Your task to perform on an android device: turn on javascript in the chrome app Image 0: 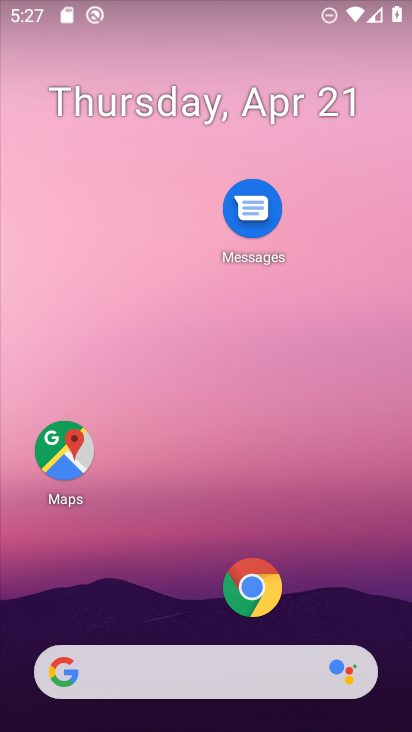
Step 0: click (247, 579)
Your task to perform on an android device: turn on javascript in the chrome app Image 1: 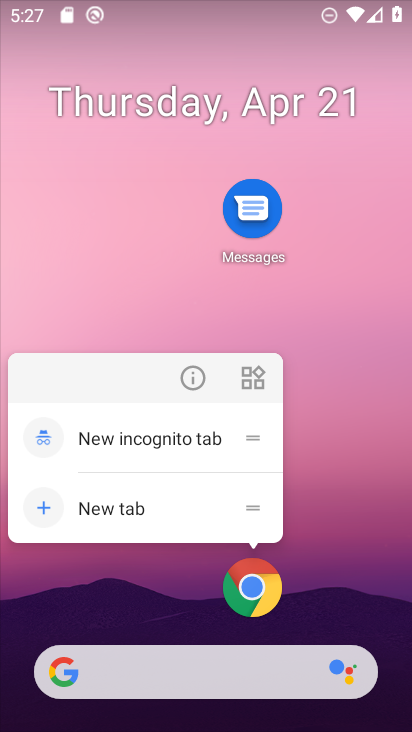
Step 1: click (244, 583)
Your task to perform on an android device: turn on javascript in the chrome app Image 2: 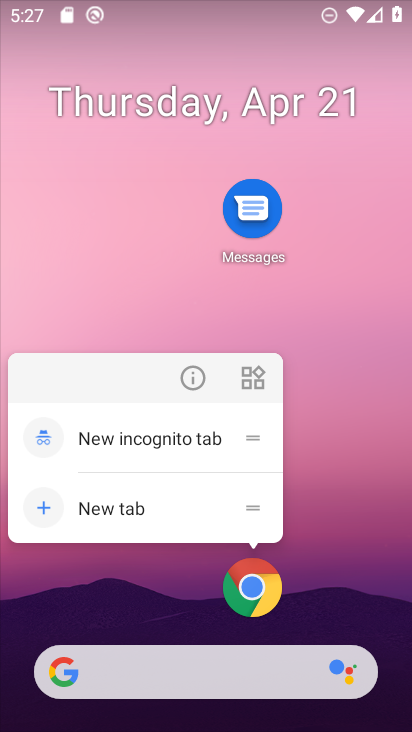
Step 2: click (319, 628)
Your task to perform on an android device: turn on javascript in the chrome app Image 3: 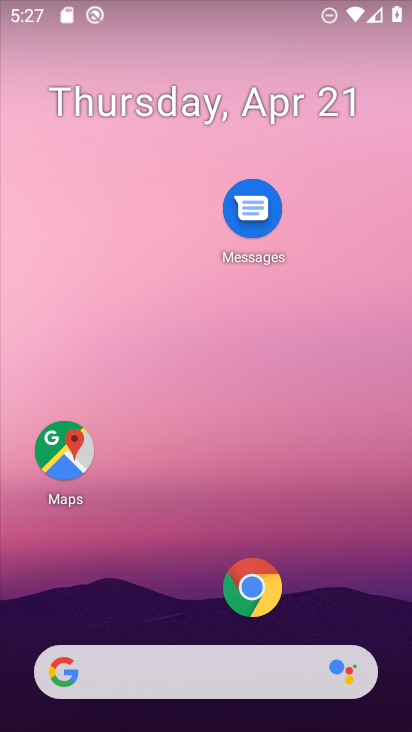
Step 3: drag from (340, 611) to (359, 20)
Your task to perform on an android device: turn on javascript in the chrome app Image 4: 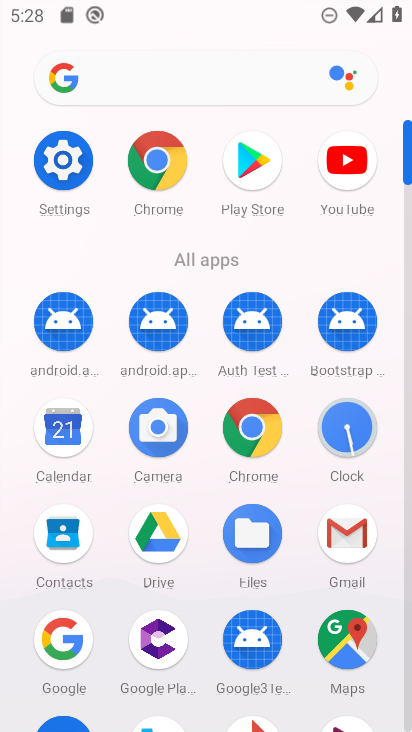
Step 4: click (149, 151)
Your task to perform on an android device: turn on javascript in the chrome app Image 5: 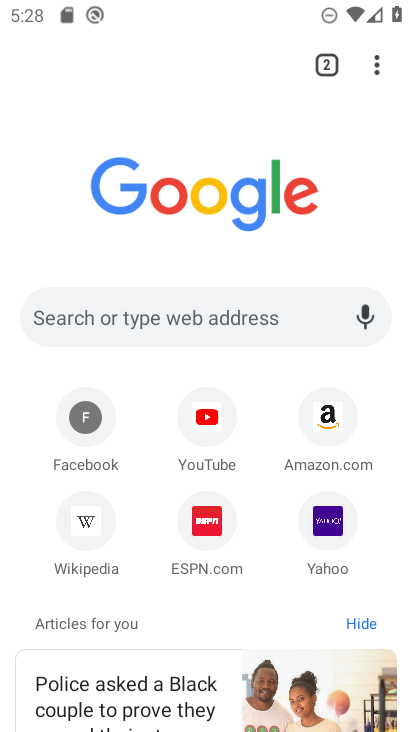
Step 5: click (376, 61)
Your task to perform on an android device: turn on javascript in the chrome app Image 6: 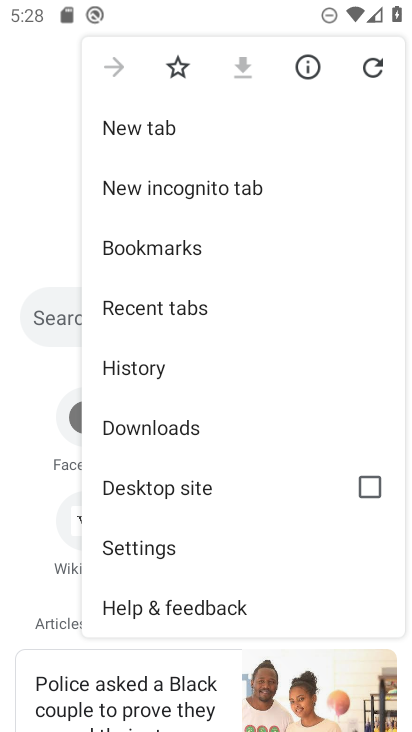
Step 6: click (185, 543)
Your task to perform on an android device: turn on javascript in the chrome app Image 7: 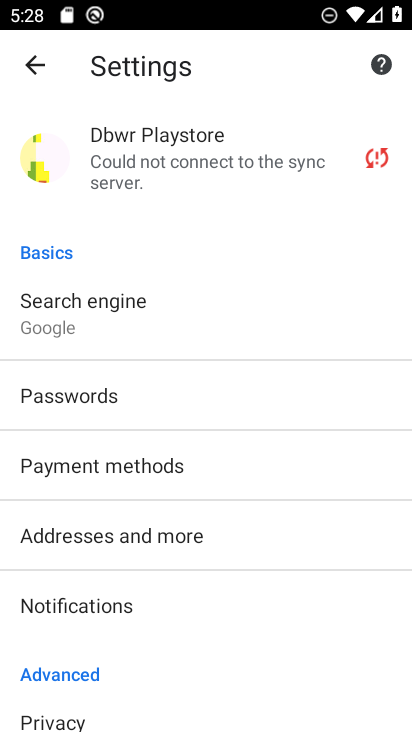
Step 7: drag from (162, 651) to (182, 209)
Your task to perform on an android device: turn on javascript in the chrome app Image 8: 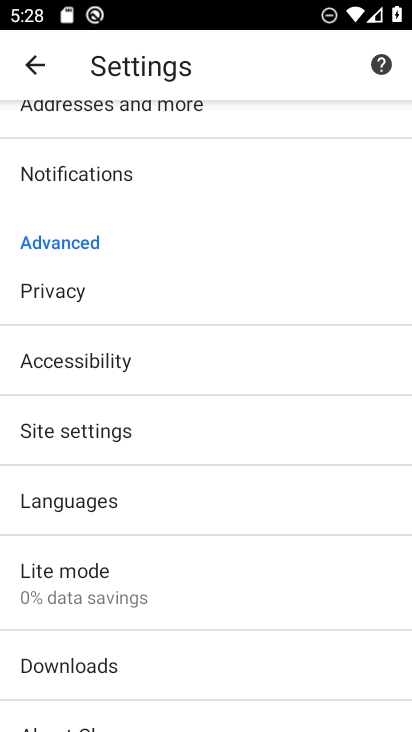
Step 8: click (136, 429)
Your task to perform on an android device: turn on javascript in the chrome app Image 9: 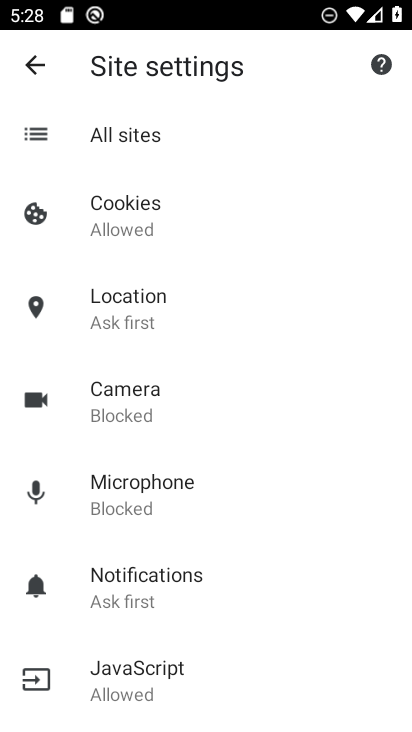
Step 9: click (191, 669)
Your task to perform on an android device: turn on javascript in the chrome app Image 10: 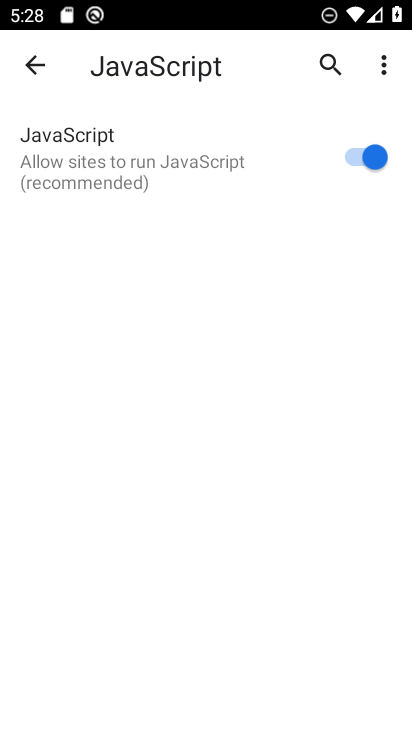
Step 10: task complete